Your task to perform on an android device: turn on the 24-hour format for clock Image 0: 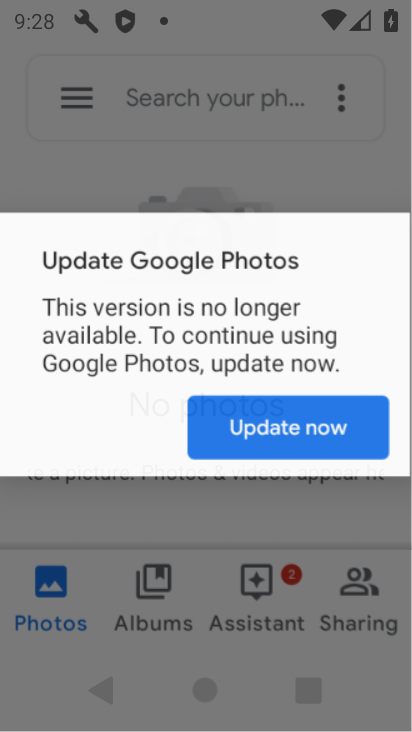
Step 0: press back button
Your task to perform on an android device: turn on the 24-hour format for clock Image 1: 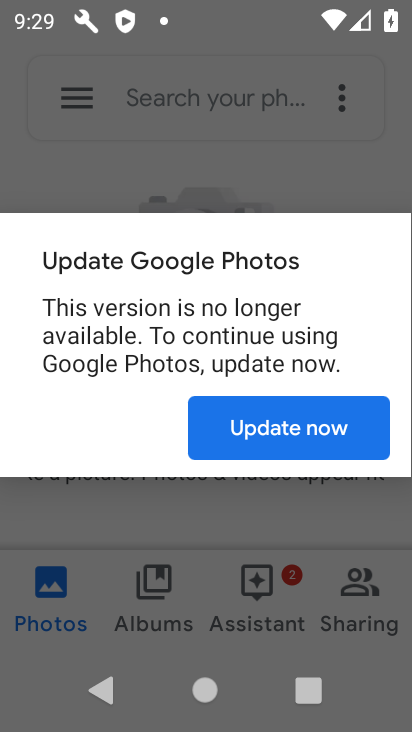
Step 1: click (70, 470)
Your task to perform on an android device: turn on the 24-hour format for clock Image 2: 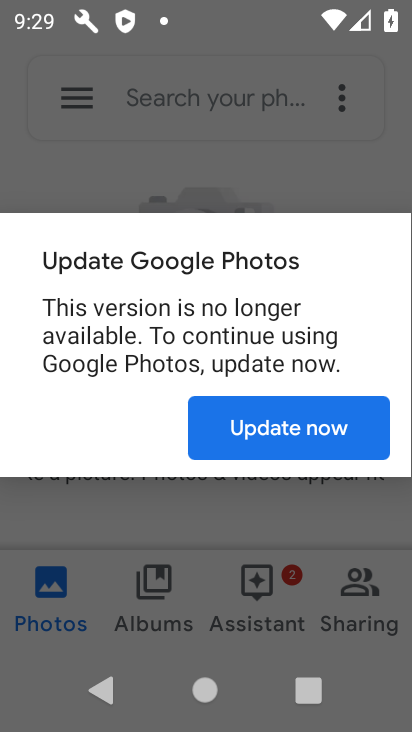
Step 2: click (261, 560)
Your task to perform on an android device: turn on the 24-hour format for clock Image 3: 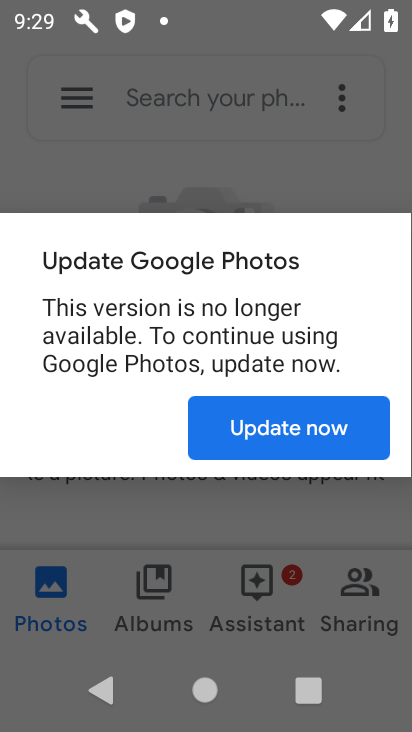
Step 3: press back button
Your task to perform on an android device: turn on the 24-hour format for clock Image 4: 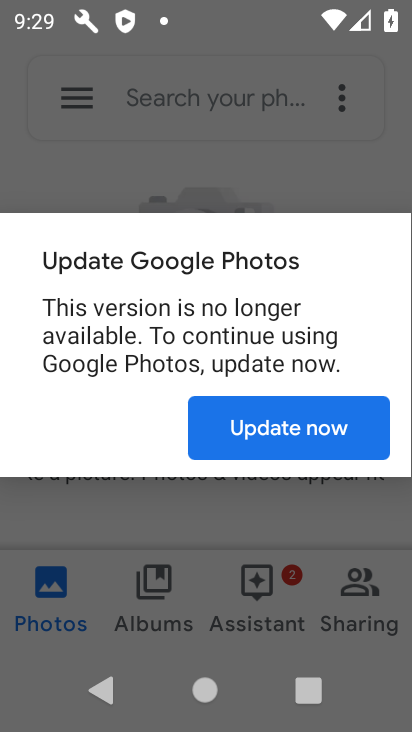
Step 4: press back button
Your task to perform on an android device: turn on the 24-hour format for clock Image 5: 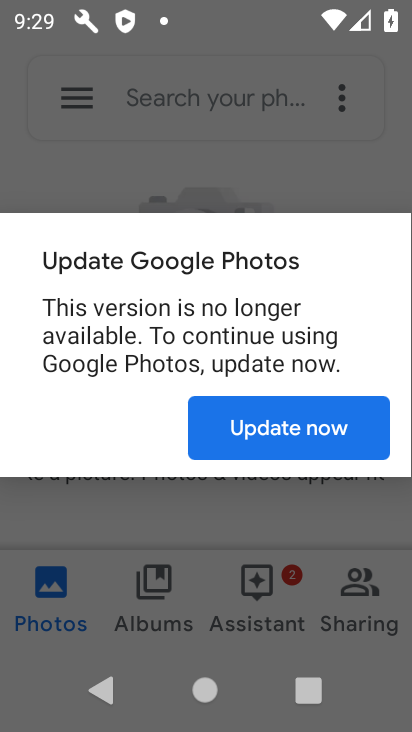
Step 5: press back button
Your task to perform on an android device: turn on the 24-hour format for clock Image 6: 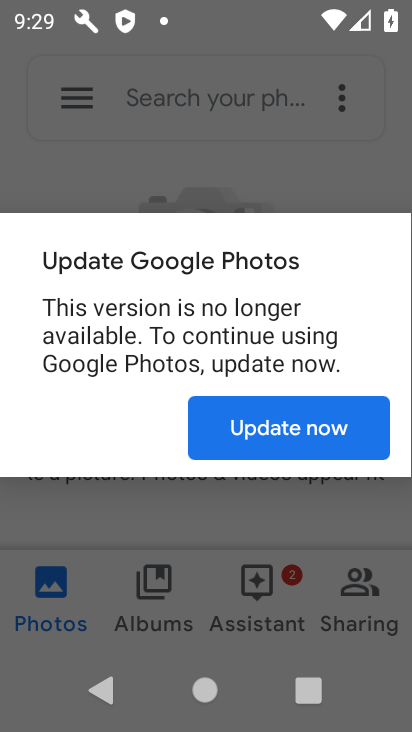
Step 6: press home button
Your task to perform on an android device: turn on the 24-hour format for clock Image 7: 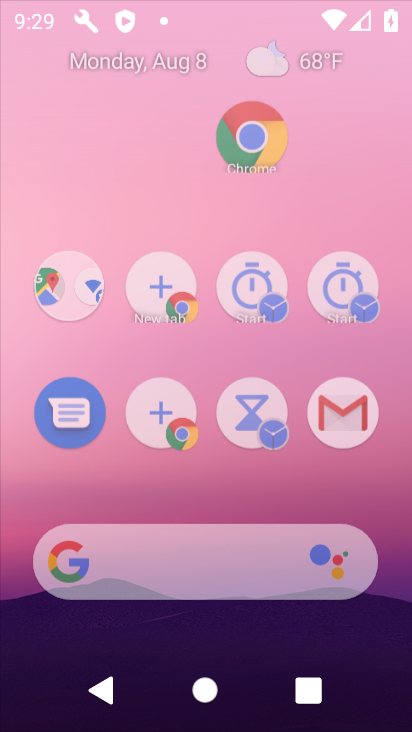
Step 7: press back button
Your task to perform on an android device: turn on the 24-hour format for clock Image 8: 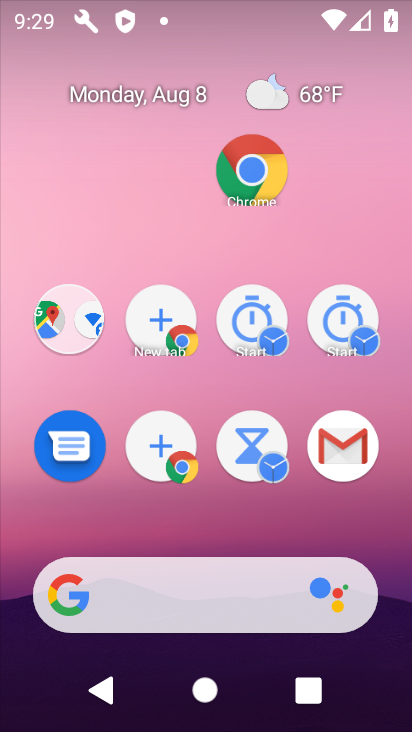
Step 8: drag from (255, 686) to (170, 225)
Your task to perform on an android device: turn on the 24-hour format for clock Image 9: 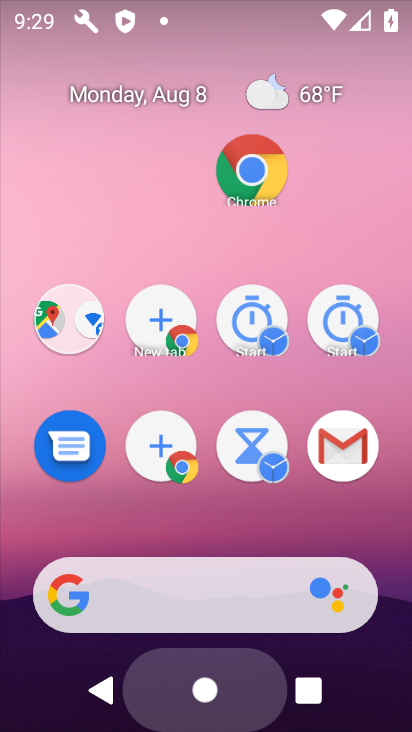
Step 9: drag from (223, 598) to (228, 231)
Your task to perform on an android device: turn on the 24-hour format for clock Image 10: 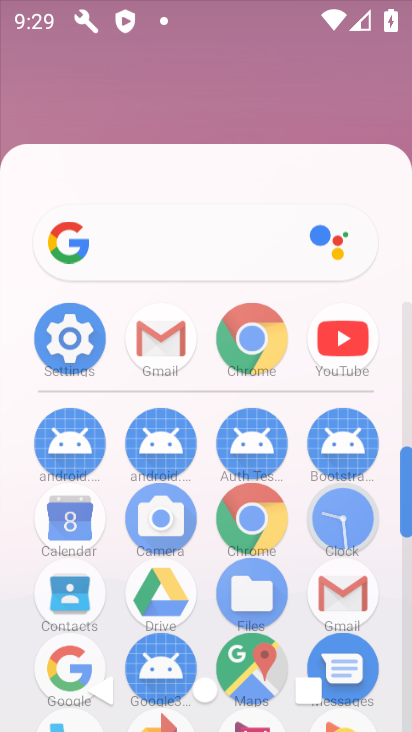
Step 10: drag from (227, 595) to (203, 295)
Your task to perform on an android device: turn on the 24-hour format for clock Image 11: 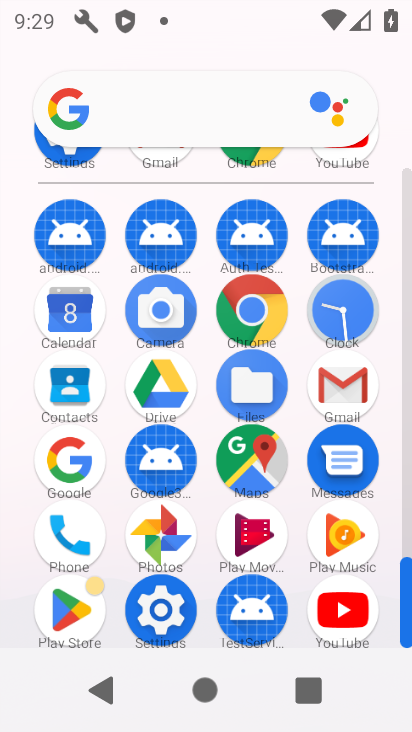
Step 11: click (338, 309)
Your task to perform on an android device: turn on the 24-hour format for clock Image 12: 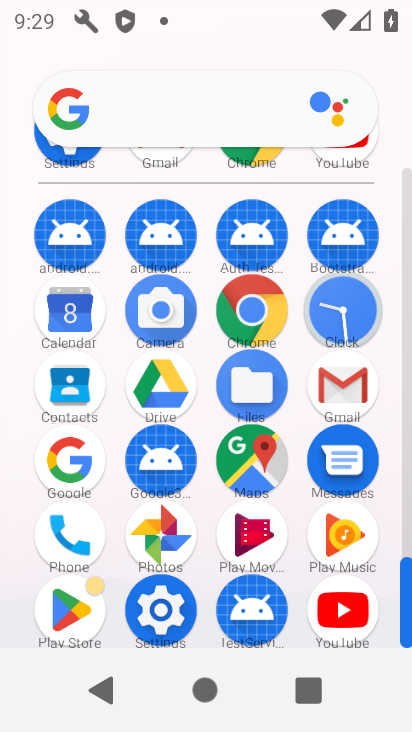
Step 12: click (342, 309)
Your task to perform on an android device: turn on the 24-hour format for clock Image 13: 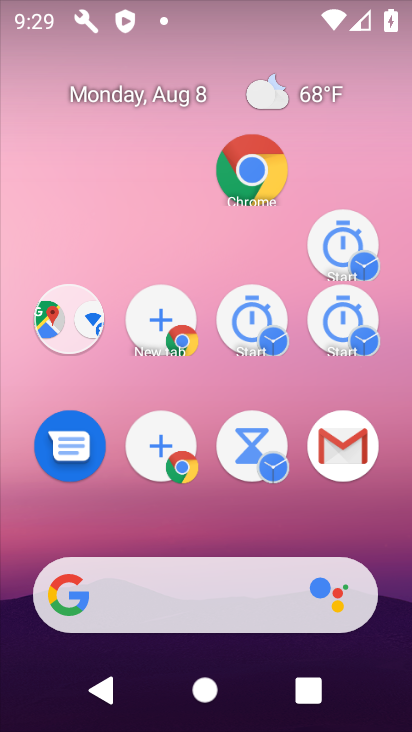
Step 13: drag from (215, 609) to (241, 104)
Your task to perform on an android device: turn on the 24-hour format for clock Image 14: 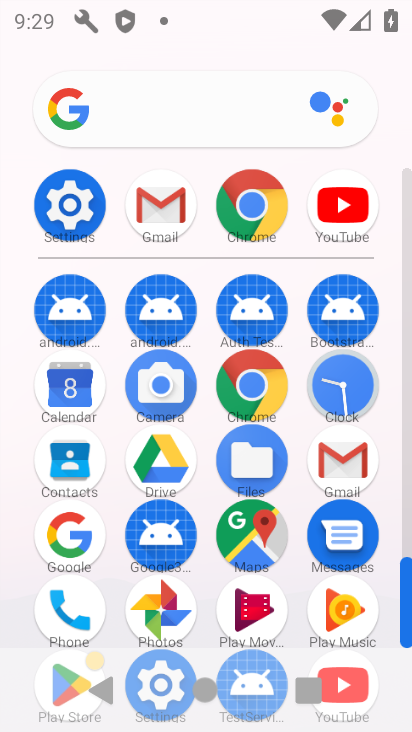
Step 14: drag from (237, 282) to (219, 60)
Your task to perform on an android device: turn on the 24-hour format for clock Image 15: 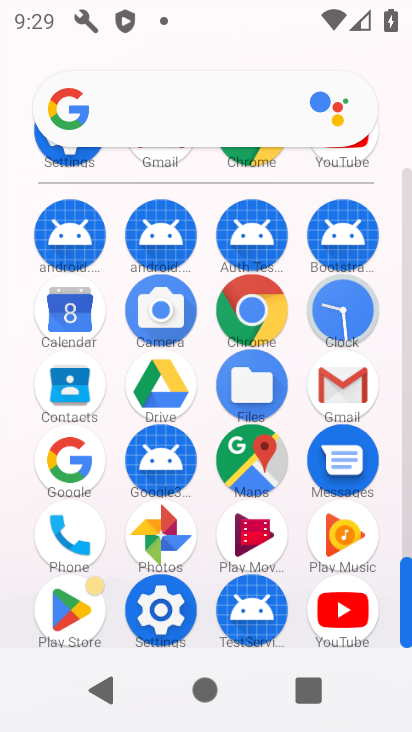
Step 15: click (329, 301)
Your task to perform on an android device: turn on the 24-hour format for clock Image 16: 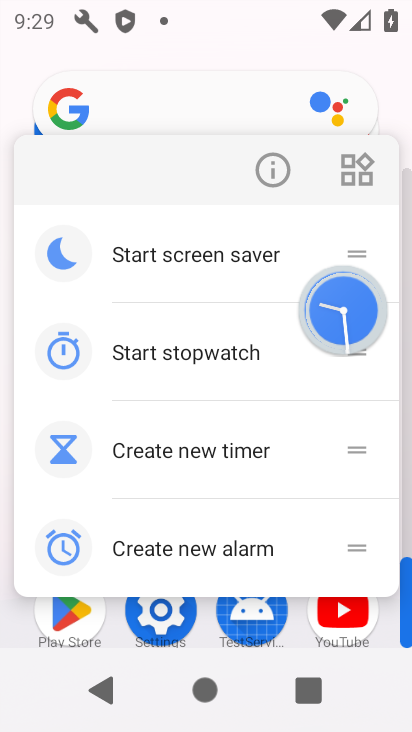
Step 16: click (355, 325)
Your task to perform on an android device: turn on the 24-hour format for clock Image 17: 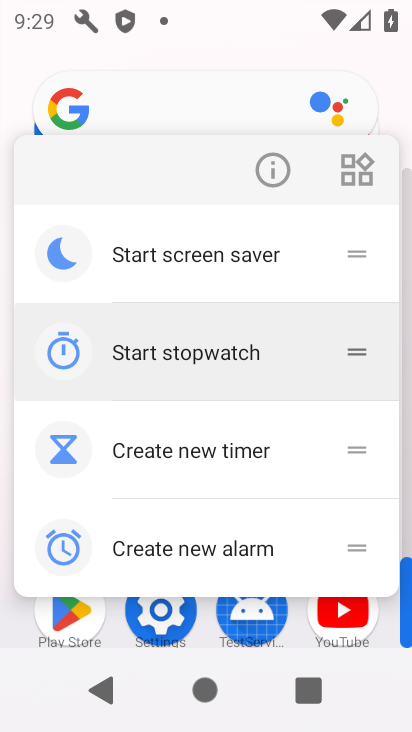
Step 17: click (357, 325)
Your task to perform on an android device: turn on the 24-hour format for clock Image 18: 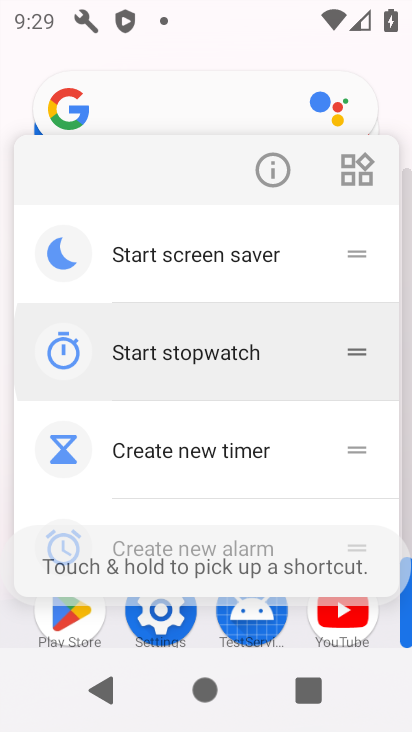
Step 18: click (358, 324)
Your task to perform on an android device: turn on the 24-hour format for clock Image 19: 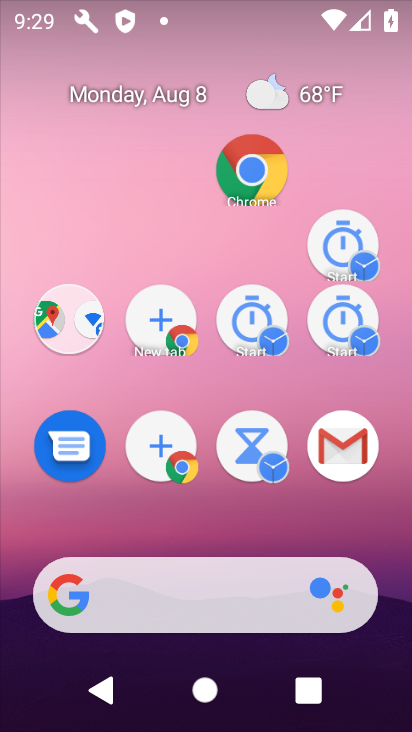
Step 19: drag from (238, 661) to (200, 234)
Your task to perform on an android device: turn on the 24-hour format for clock Image 20: 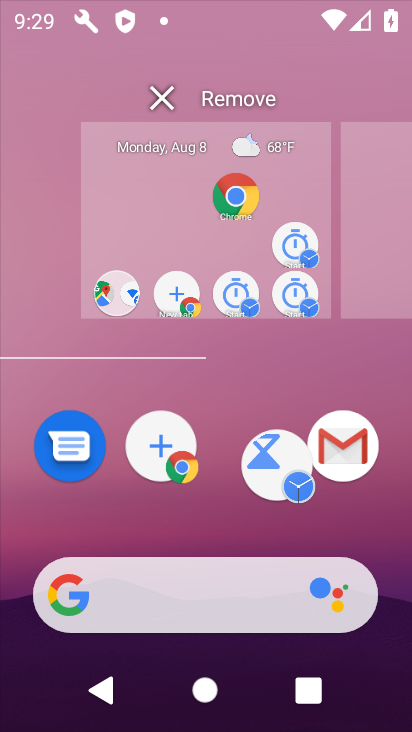
Step 20: drag from (225, 438) to (224, 327)
Your task to perform on an android device: turn on the 24-hour format for clock Image 21: 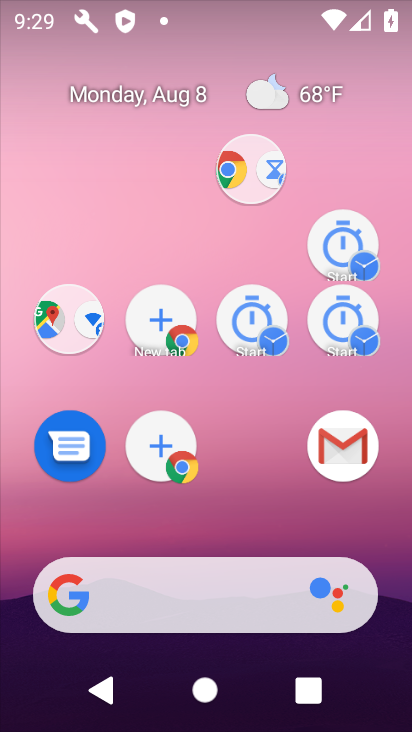
Step 21: click (267, 339)
Your task to perform on an android device: turn on the 24-hour format for clock Image 22: 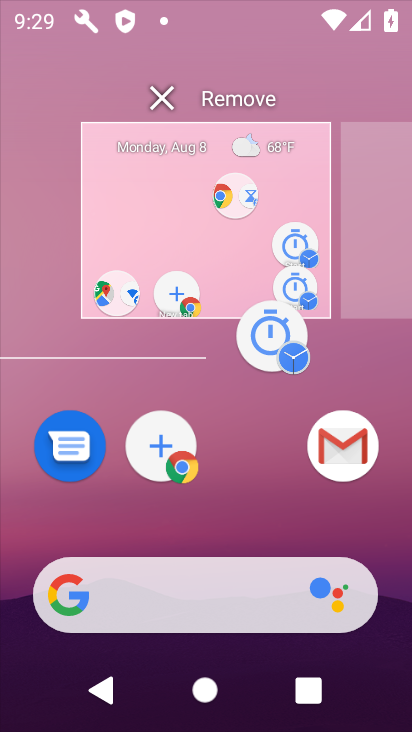
Step 22: drag from (243, 489) to (237, 89)
Your task to perform on an android device: turn on the 24-hour format for clock Image 23: 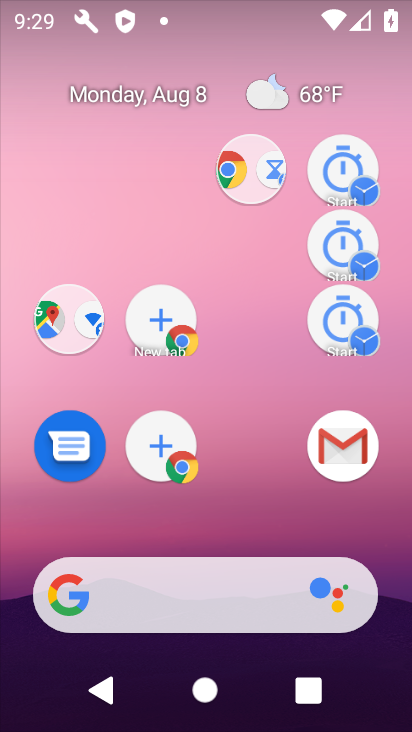
Step 23: click (186, 118)
Your task to perform on an android device: turn on the 24-hour format for clock Image 24: 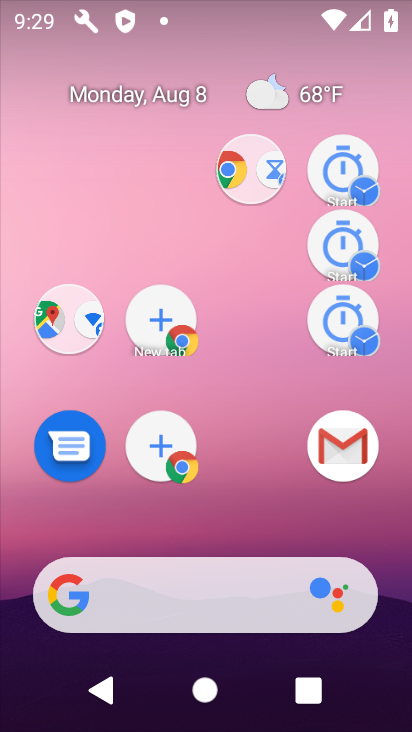
Step 24: drag from (156, 191) to (219, 40)
Your task to perform on an android device: turn on the 24-hour format for clock Image 25: 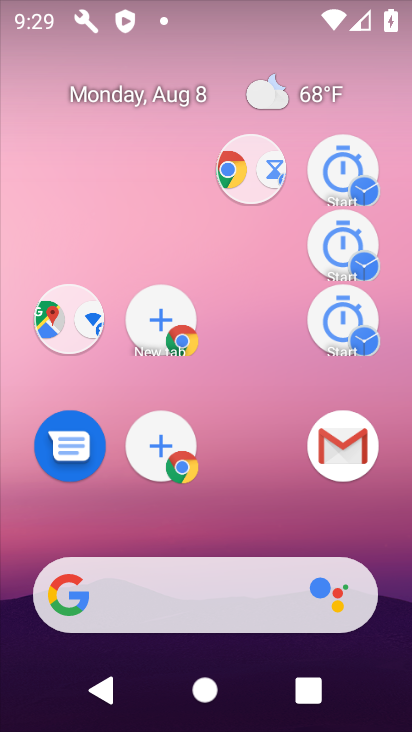
Step 25: drag from (226, 181) to (226, 86)
Your task to perform on an android device: turn on the 24-hour format for clock Image 26: 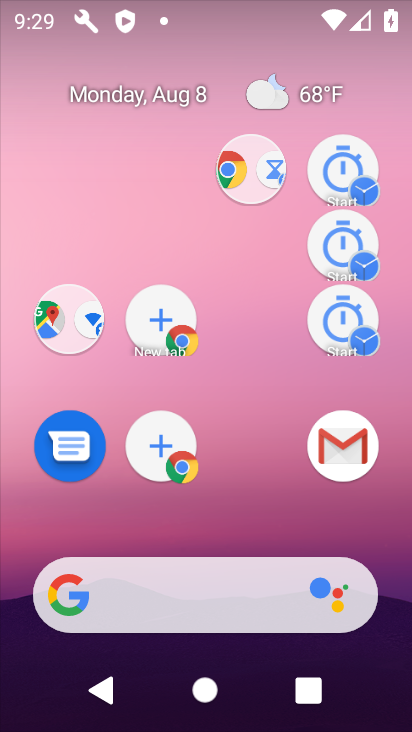
Step 26: drag from (307, 532) to (227, 238)
Your task to perform on an android device: turn on the 24-hour format for clock Image 27: 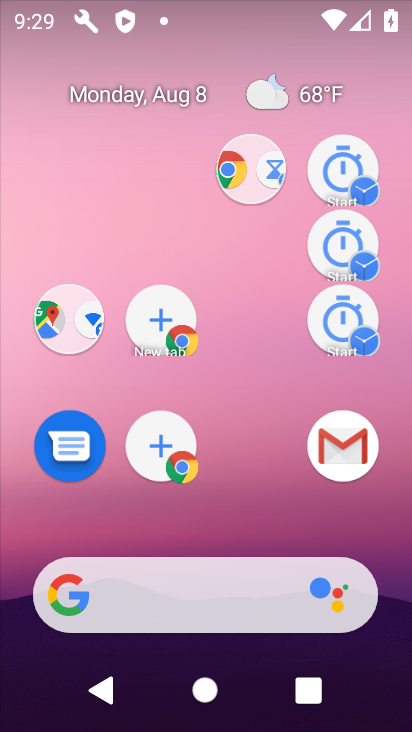
Step 27: drag from (154, 449) to (135, 205)
Your task to perform on an android device: turn on the 24-hour format for clock Image 28: 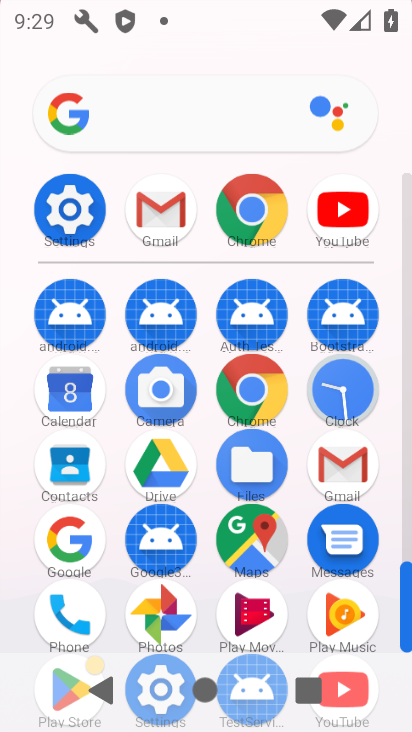
Step 28: drag from (123, 514) to (102, 350)
Your task to perform on an android device: turn on the 24-hour format for clock Image 29: 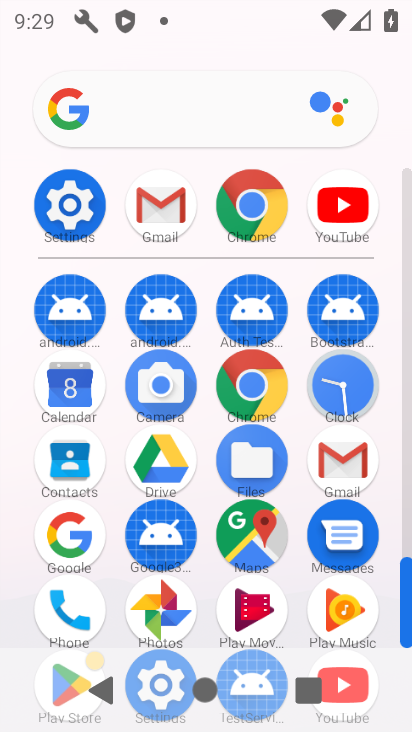
Step 29: click (320, 378)
Your task to perform on an android device: turn on the 24-hour format for clock Image 30: 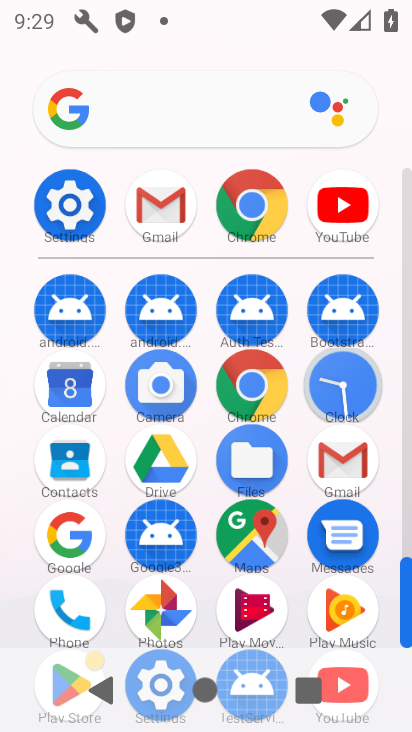
Step 30: click (314, 405)
Your task to perform on an android device: turn on the 24-hour format for clock Image 31: 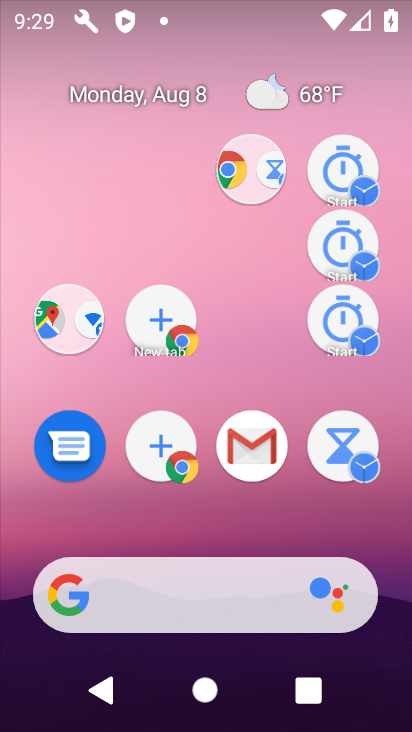
Step 31: drag from (237, 482) to (217, 52)
Your task to perform on an android device: turn on the 24-hour format for clock Image 32: 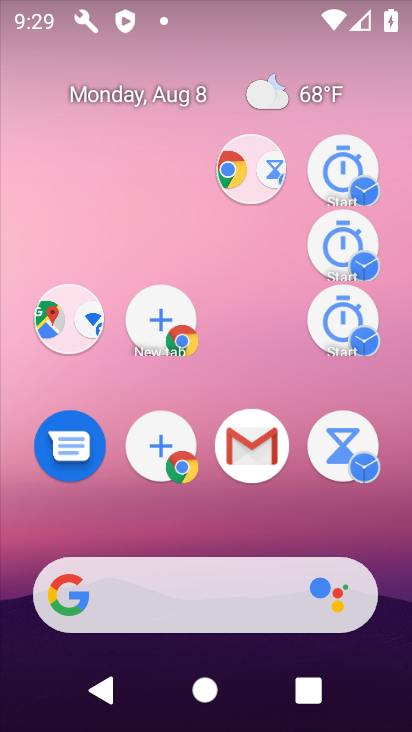
Step 32: drag from (267, 464) to (262, 145)
Your task to perform on an android device: turn on the 24-hour format for clock Image 33: 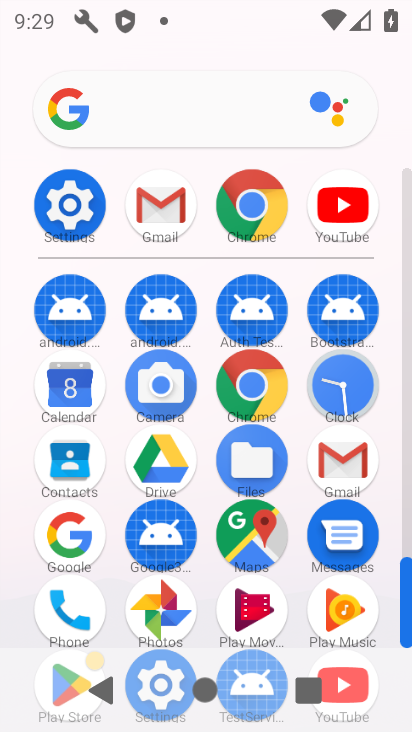
Step 33: drag from (346, 426) to (311, 128)
Your task to perform on an android device: turn on the 24-hour format for clock Image 34: 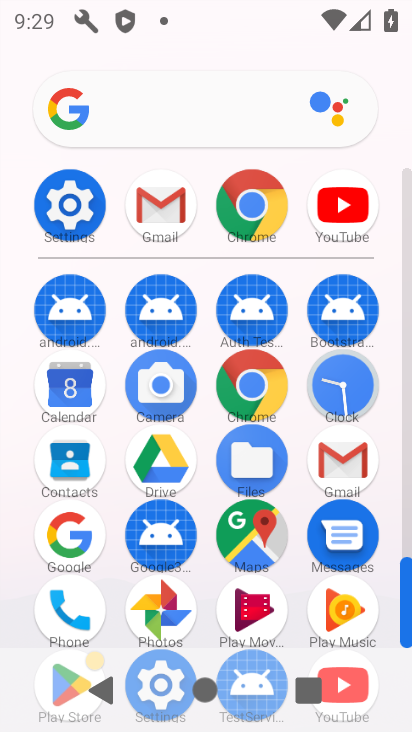
Step 34: click (339, 370)
Your task to perform on an android device: turn on the 24-hour format for clock Image 35: 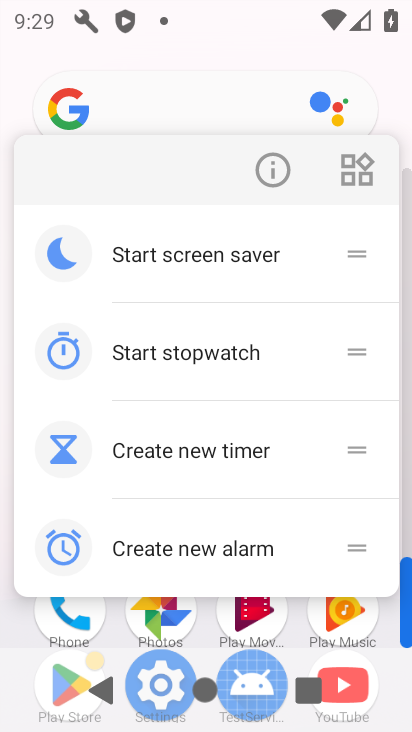
Step 35: click (190, 360)
Your task to perform on an android device: turn on the 24-hour format for clock Image 36: 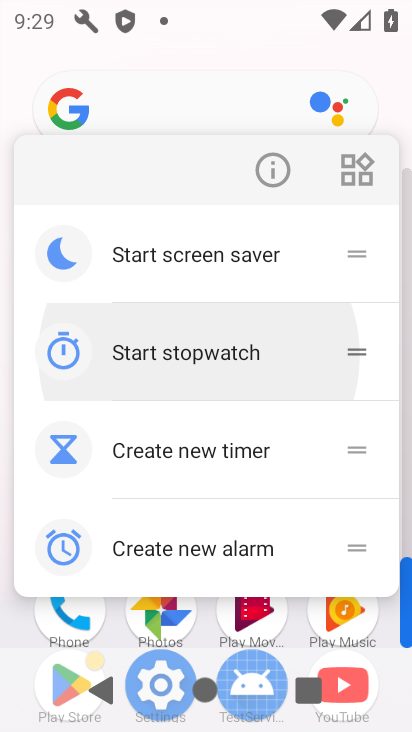
Step 36: click (190, 360)
Your task to perform on an android device: turn on the 24-hour format for clock Image 37: 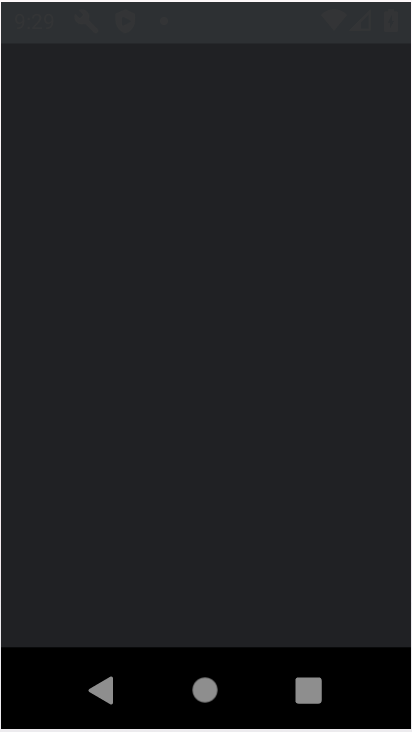
Step 37: click (193, 358)
Your task to perform on an android device: turn on the 24-hour format for clock Image 38: 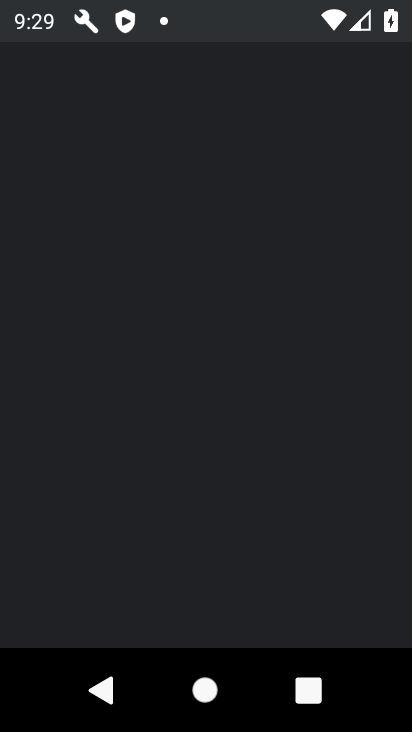
Step 38: click (195, 358)
Your task to perform on an android device: turn on the 24-hour format for clock Image 39: 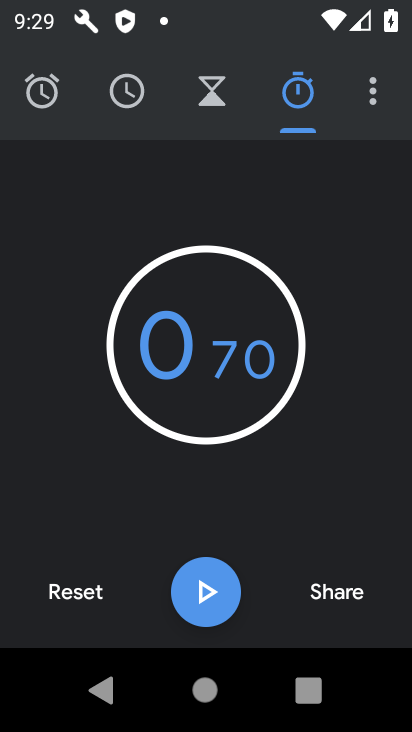
Step 39: click (366, 101)
Your task to perform on an android device: turn on the 24-hour format for clock Image 40: 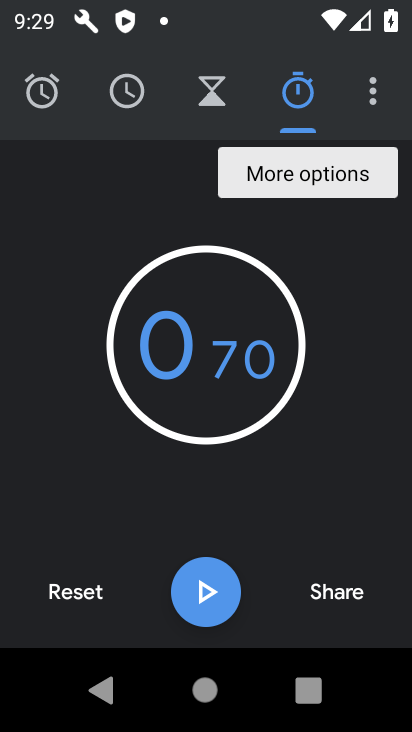
Step 40: click (366, 101)
Your task to perform on an android device: turn on the 24-hour format for clock Image 41: 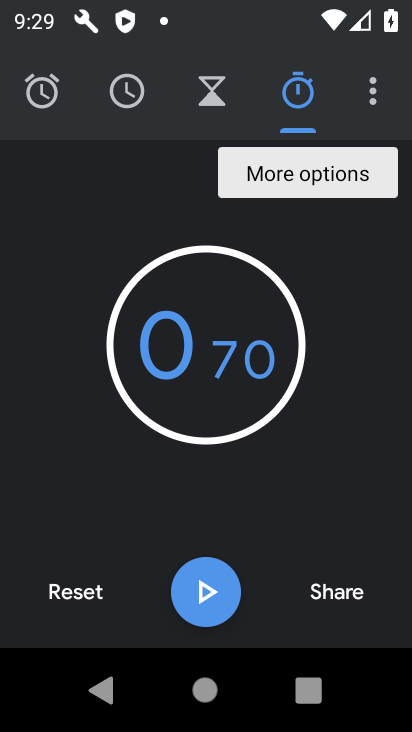
Step 41: click (386, 106)
Your task to perform on an android device: turn on the 24-hour format for clock Image 42: 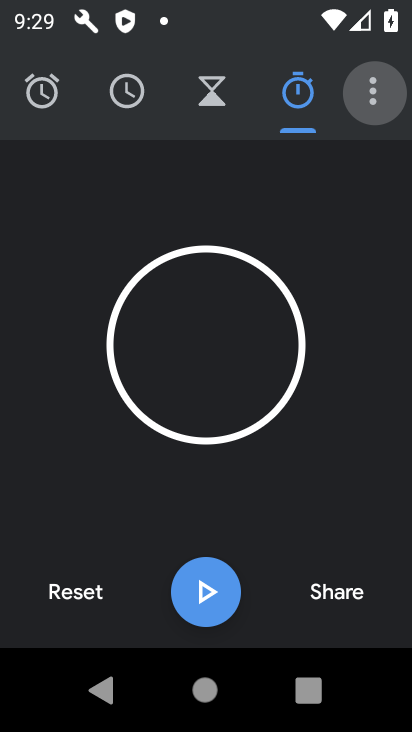
Step 42: click (373, 111)
Your task to perform on an android device: turn on the 24-hour format for clock Image 43: 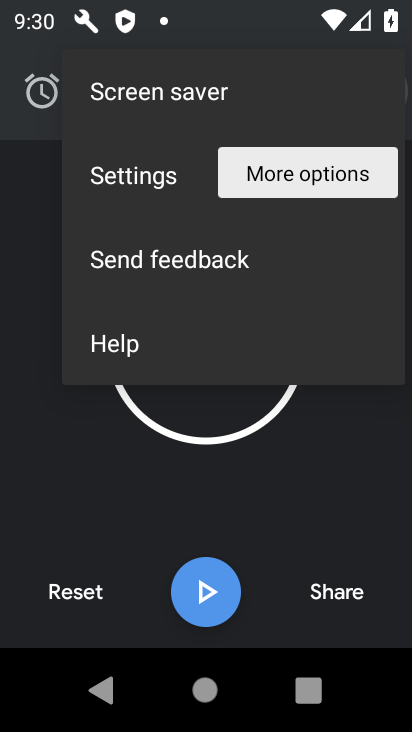
Step 43: click (169, 173)
Your task to perform on an android device: turn on the 24-hour format for clock Image 44: 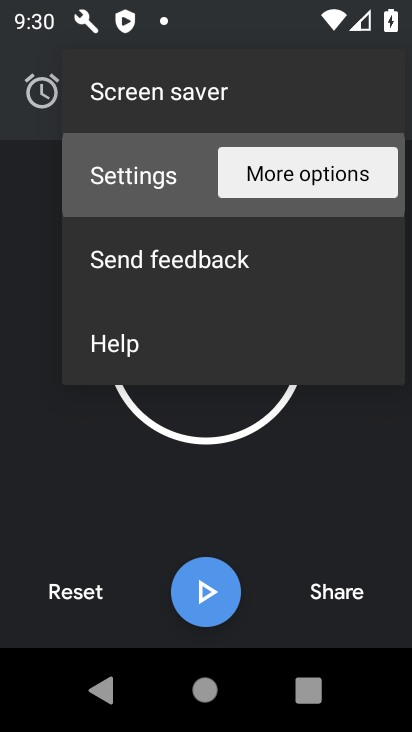
Step 44: click (166, 172)
Your task to perform on an android device: turn on the 24-hour format for clock Image 45: 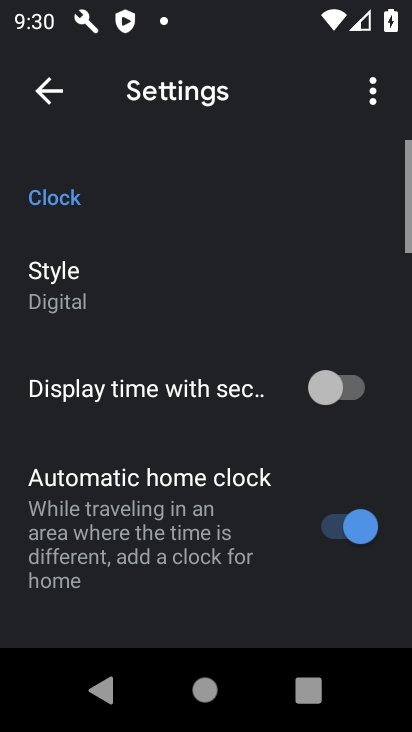
Step 45: click (167, 172)
Your task to perform on an android device: turn on the 24-hour format for clock Image 46: 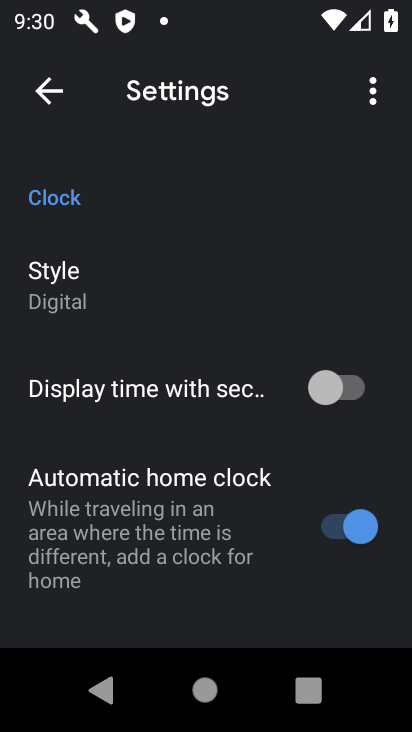
Step 46: drag from (215, 432) to (239, 112)
Your task to perform on an android device: turn on the 24-hour format for clock Image 47: 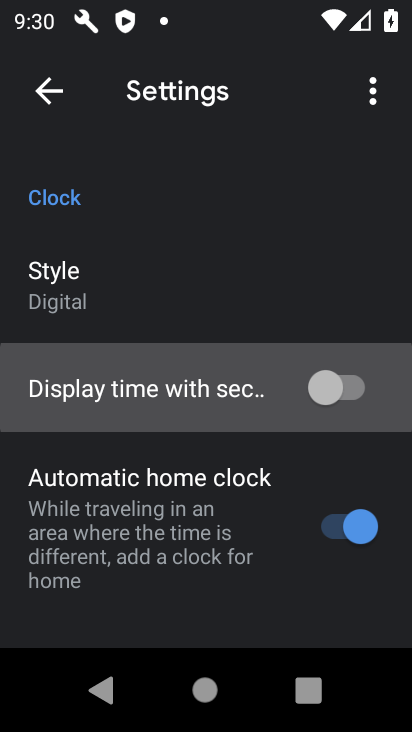
Step 47: drag from (239, 467) to (193, 153)
Your task to perform on an android device: turn on the 24-hour format for clock Image 48: 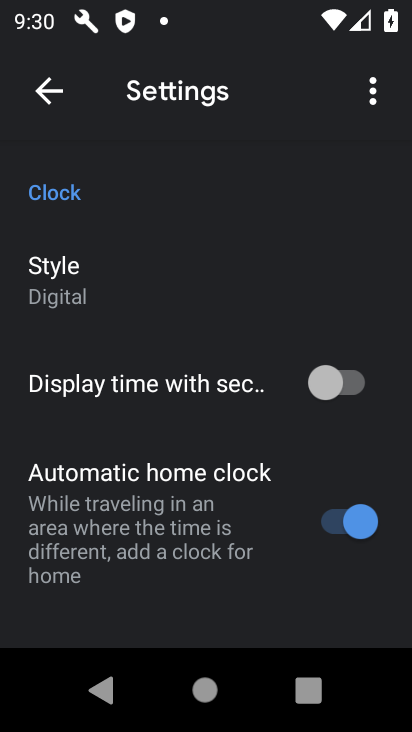
Step 48: drag from (203, 594) to (163, 188)
Your task to perform on an android device: turn on the 24-hour format for clock Image 49: 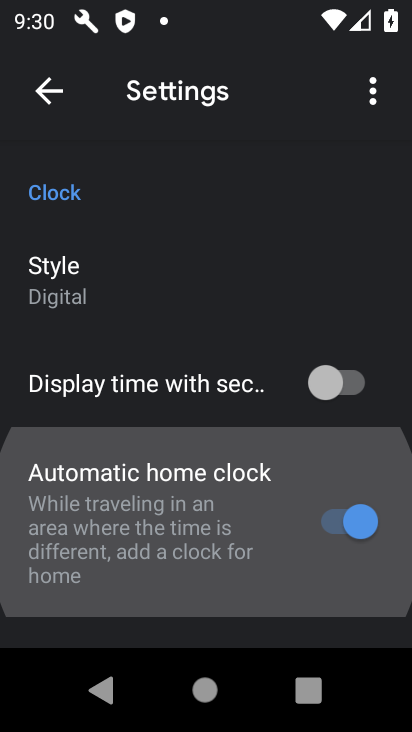
Step 49: drag from (198, 554) to (186, 375)
Your task to perform on an android device: turn on the 24-hour format for clock Image 50: 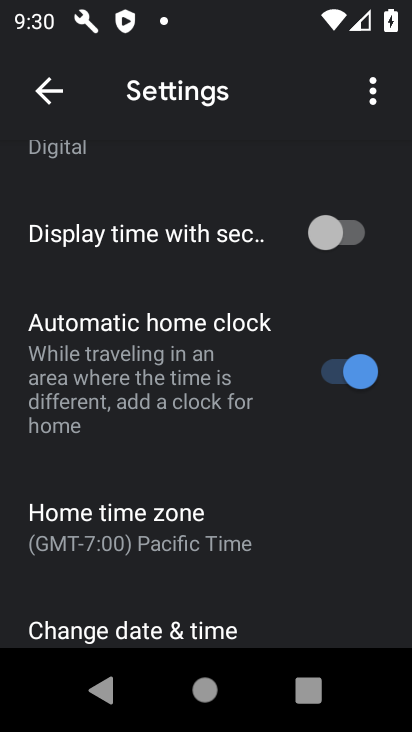
Step 50: drag from (176, 135) to (176, 88)
Your task to perform on an android device: turn on the 24-hour format for clock Image 51: 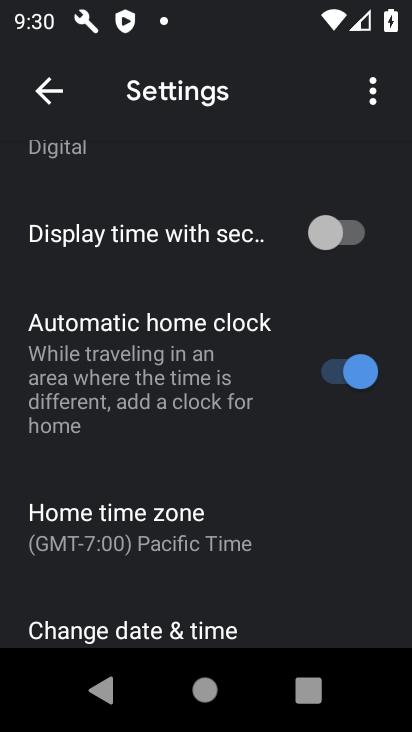
Step 51: drag from (206, 425) to (203, 137)
Your task to perform on an android device: turn on the 24-hour format for clock Image 52: 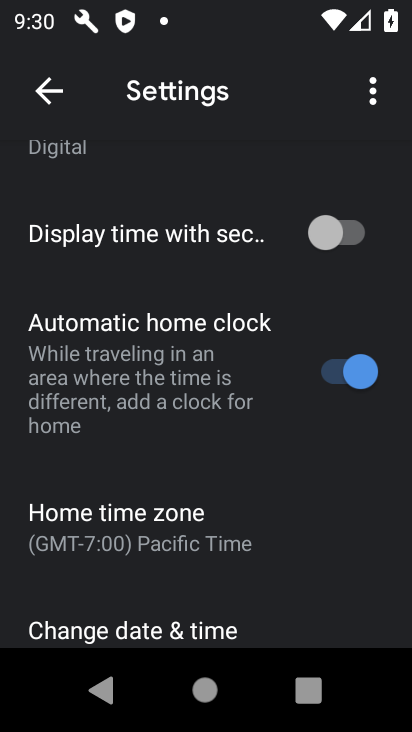
Step 52: drag from (144, 437) to (78, 197)
Your task to perform on an android device: turn on the 24-hour format for clock Image 53: 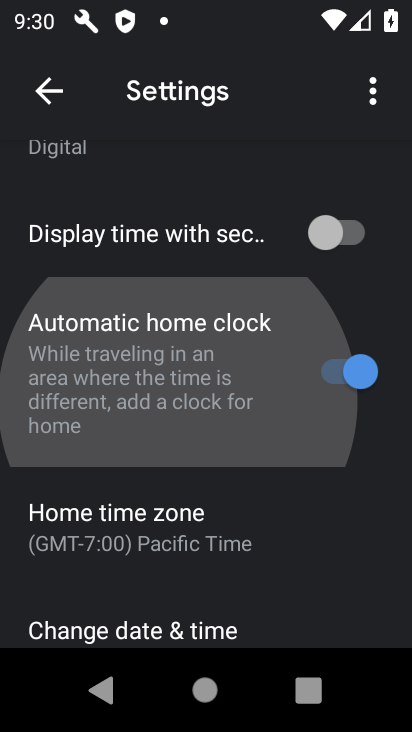
Step 53: drag from (158, 524) to (98, 277)
Your task to perform on an android device: turn on the 24-hour format for clock Image 54: 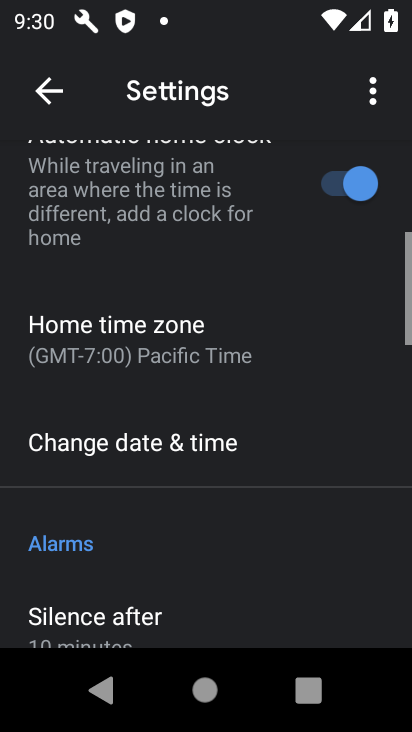
Step 54: drag from (157, 508) to (147, 196)
Your task to perform on an android device: turn on the 24-hour format for clock Image 55: 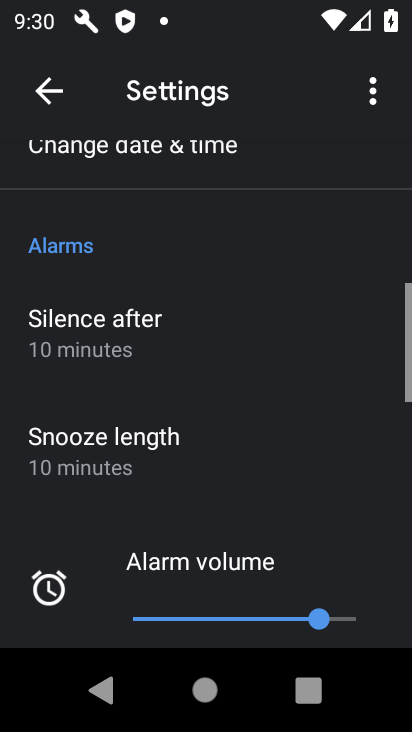
Step 55: drag from (142, 483) to (122, 301)
Your task to perform on an android device: turn on the 24-hour format for clock Image 56: 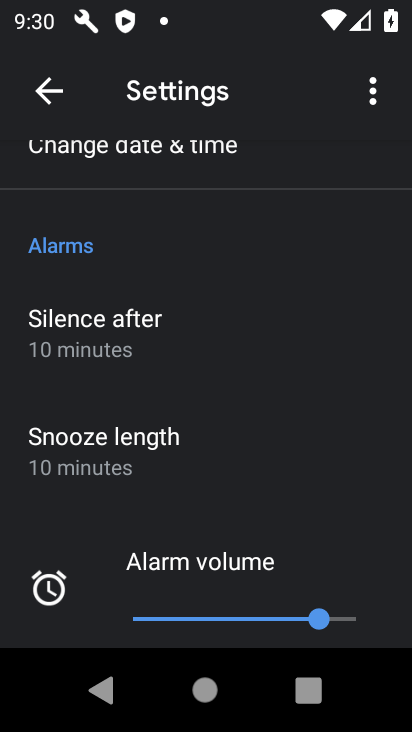
Step 56: drag from (177, 354) to (175, 568)
Your task to perform on an android device: turn on the 24-hour format for clock Image 57: 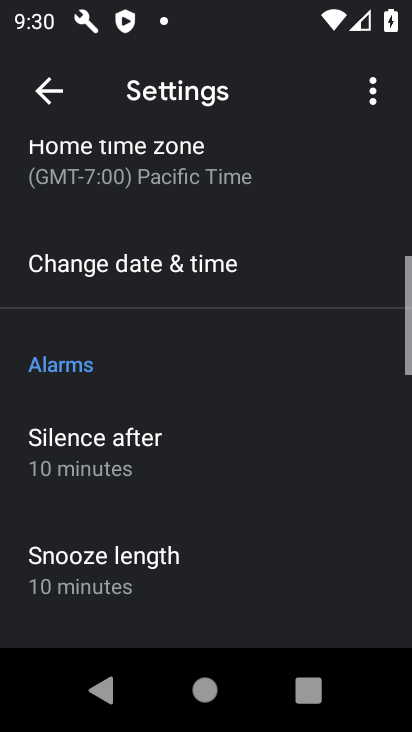
Step 57: drag from (184, 379) to (200, 532)
Your task to perform on an android device: turn on the 24-hour format for clock Image 58: 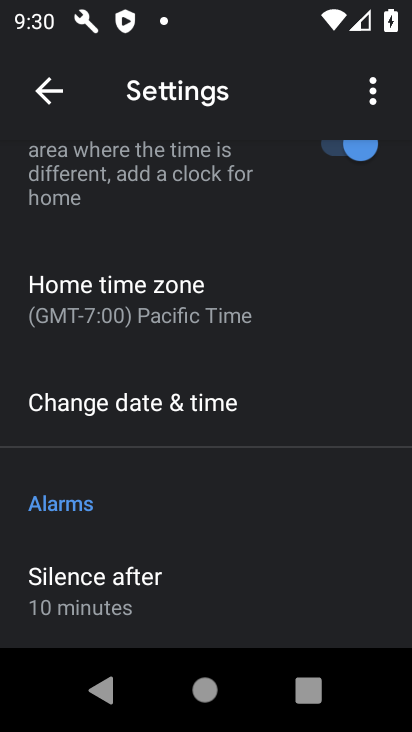
Step 58: click (148, 414)
Your task to perform on an android device: turn on the 24-hour format for clock Image 59: 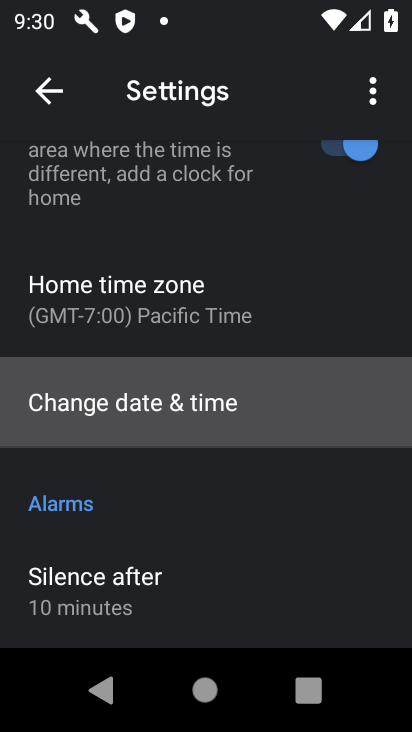
Step 59: click (170, 427)
Your task to perform on an android device: turn on the 24-hour format for clock Image 60: 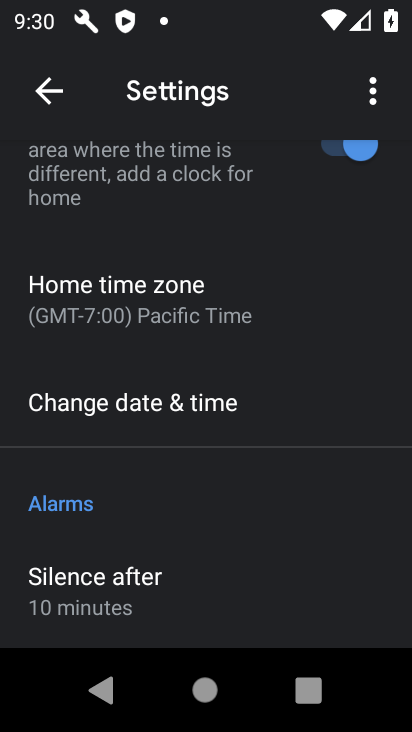
Step 60: click (170, 424)
Your task to perform on an android device: turn on the 24-hour format for clock Image 61: 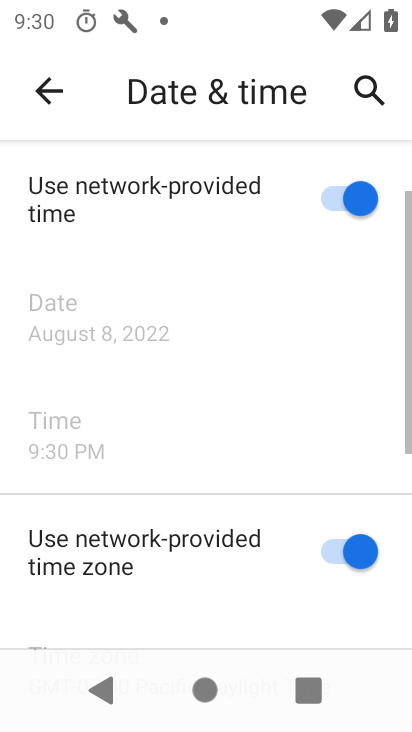
Step 61: drag from (249, 514) to (176, 235)
Your task to perform on an android device: turn on the 24-hour format for clock Image 62: 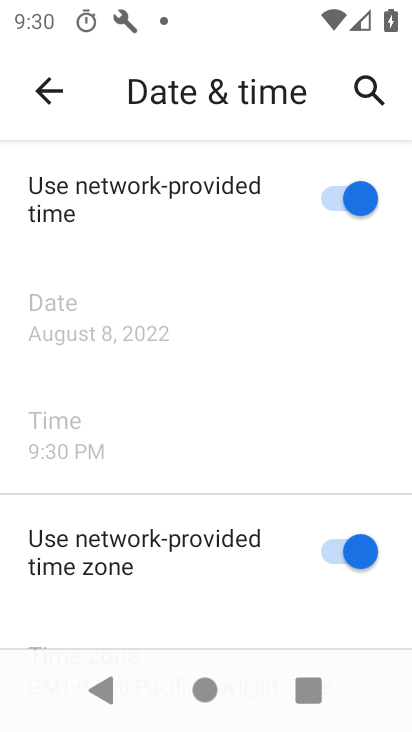
Step 62: drag from (187, 391) to (185, 173)
Your task to perform on an android device: turn on the 24-hour format for clock Image 63: 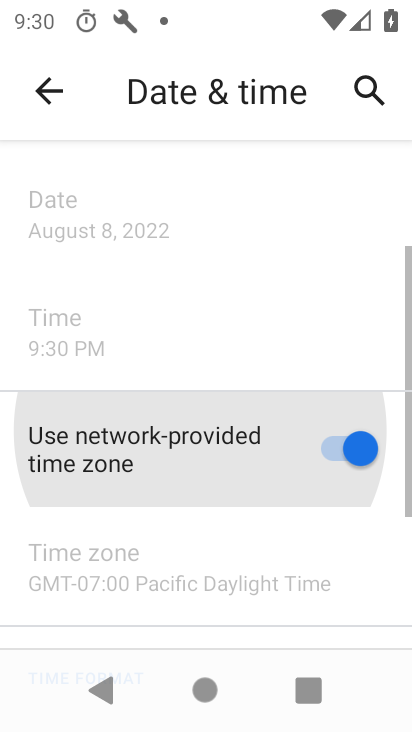
Step 63: drag from (168, 407) to (168, 162)
Your task to perform on an android device: turn on the 24-hour format for clock Image 64: 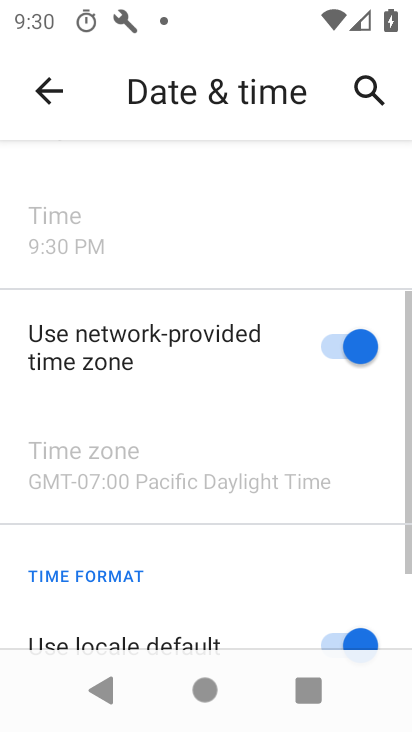
Step 64: drag from (225, 435) to (235, 181)
Your task to perform on an android device: turn on the 24-hour format for clock Image 65: 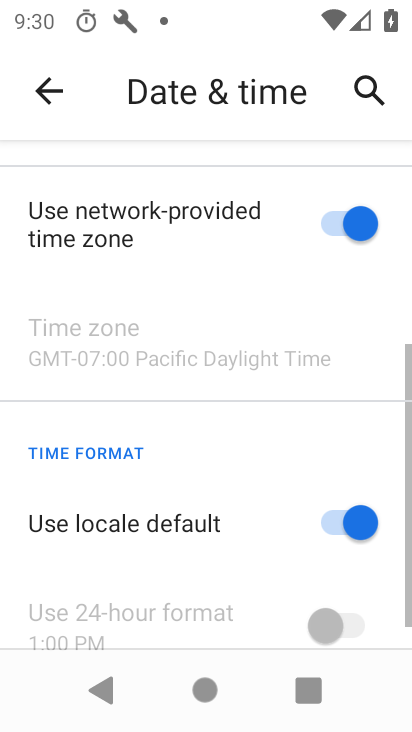
Step 65: drag from (260, 421) to (230, 151)
Your task to perform on an android device: turn on the 24-hour format for clock Image 66: 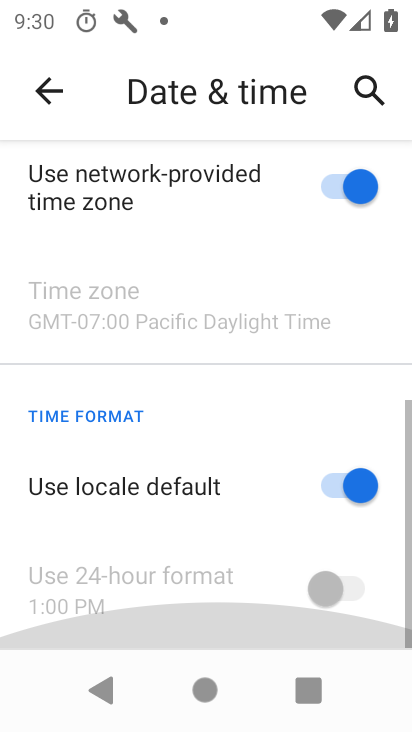
Step 66: drag from (266, 432) to (221, 166)
Your task to perform on an android device: turn on the 24-hour format for clock Image 67: 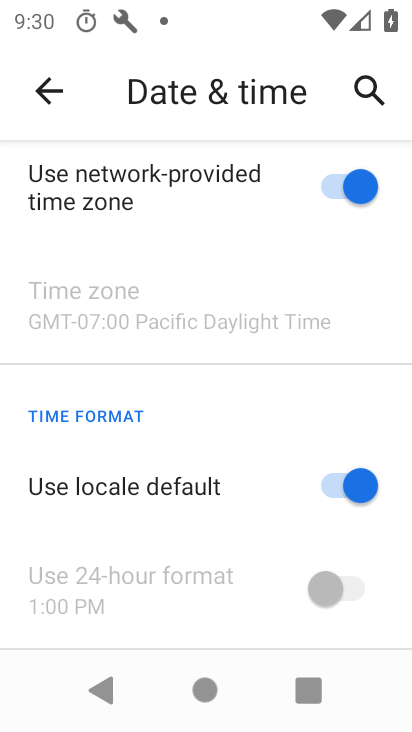
Step 67: click (352, 473)
Your task to perform on an android device: turn on the 24-hour format for clock Image 68: 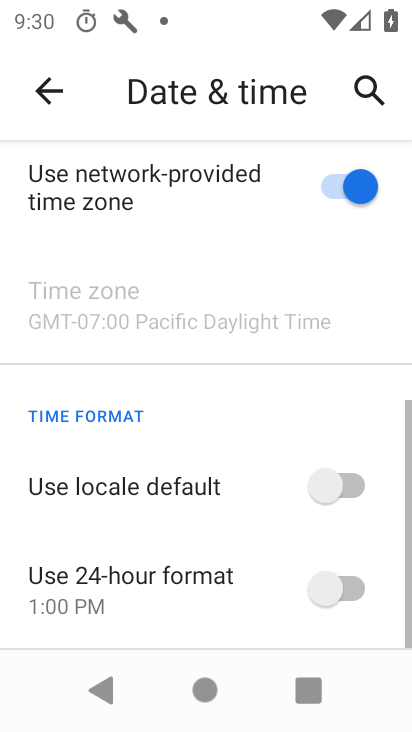
Step 68: click (330, 587)
Your task to perform on an android device: turn on the 24-hour format for clock Image 69: 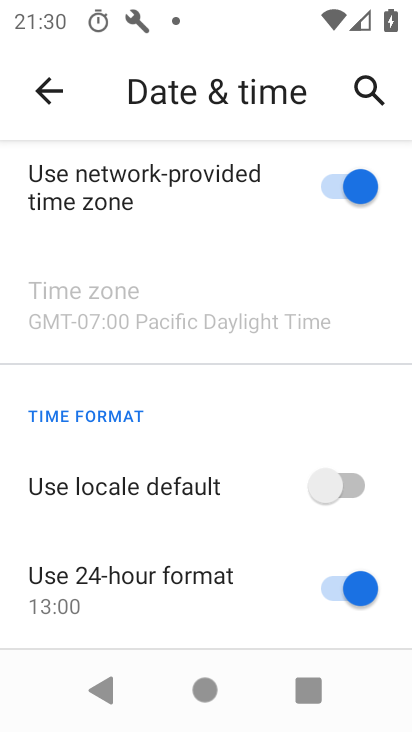
Step 69: task complete